Your task to perform on an android device: change alarm snooze length Image 0: 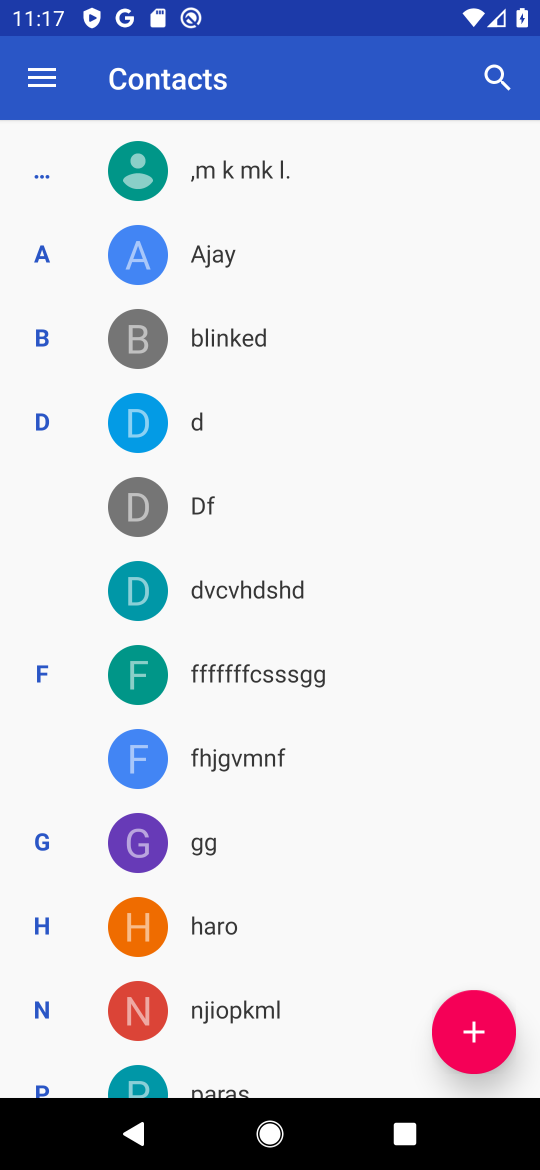
Step 0: press home button
Your task to perform on an android device: change alarm snooze length Image 1: 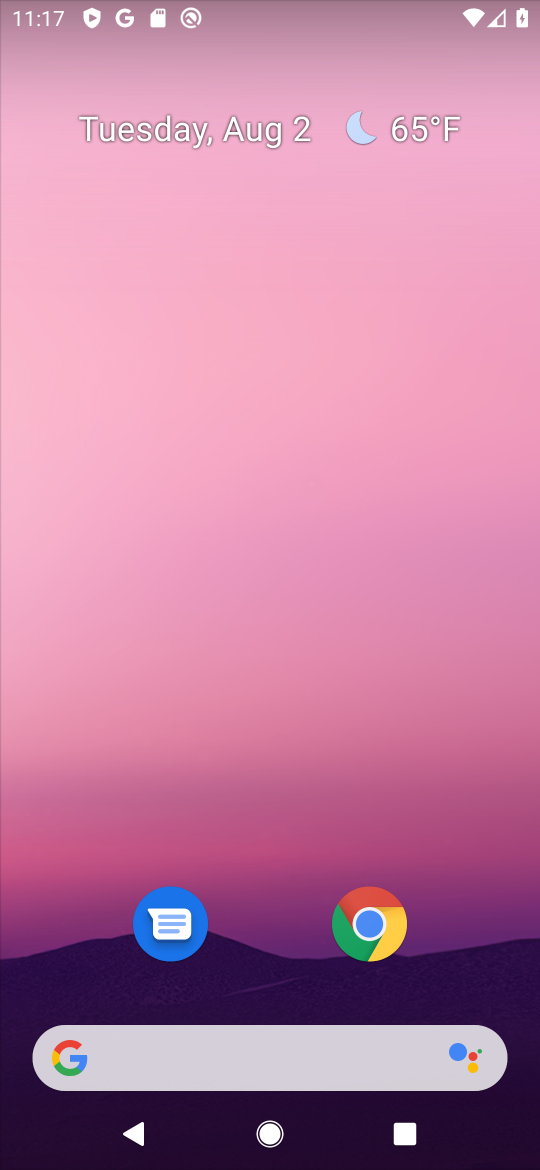
Step 1: drag from (314, 963) to (379, 213)
Your task to perform on an android device: change alarm snooze length Image 2: 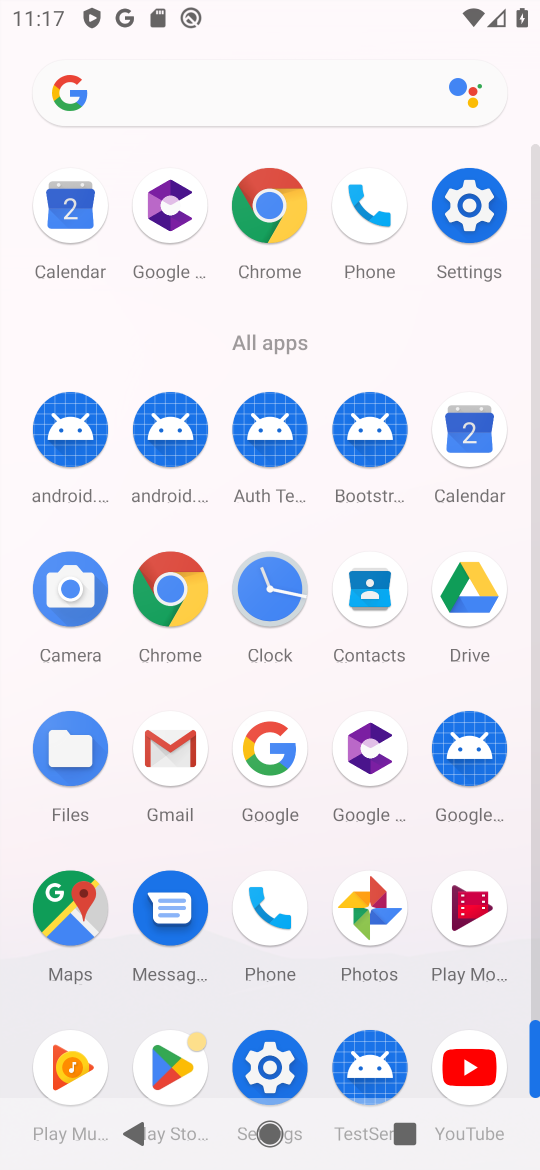
Step 2: click (258, 593)
Your task to perform on an android device: change alarm snooze length Image 3: 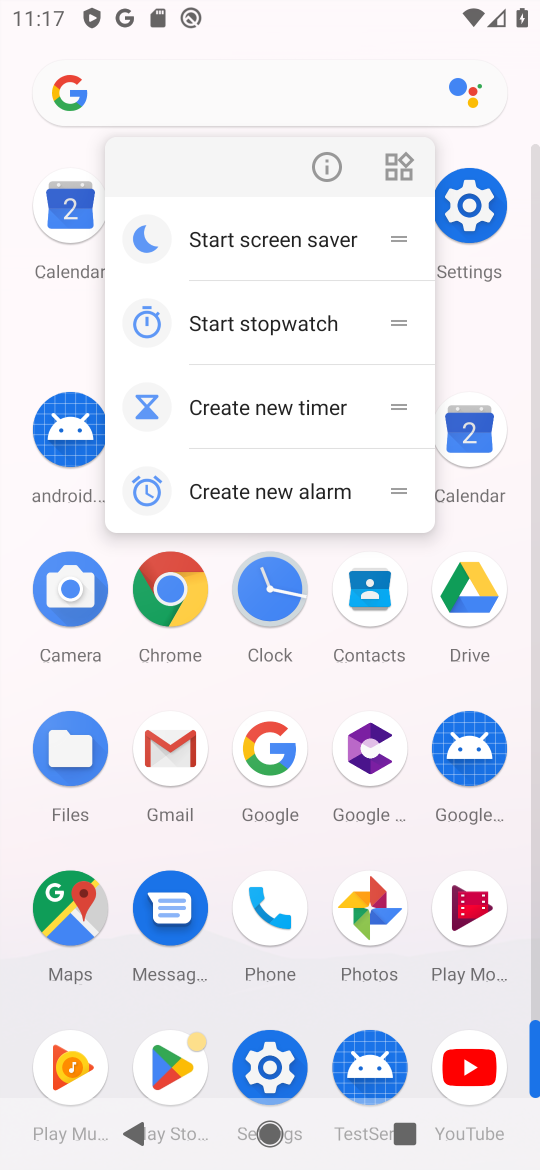
Step 3: click (505, 555)
Your task to perform on an android device: change alarm snooze length Image 4: 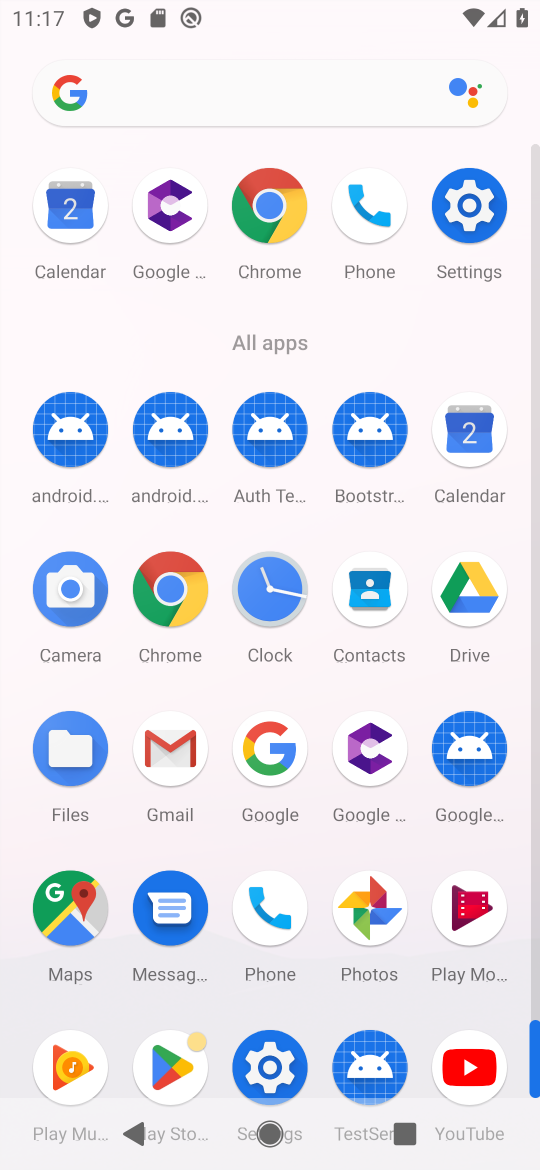
Step 4: click (267, 594)
Your task to perform on an android device: change alarm snooze length Image 5: 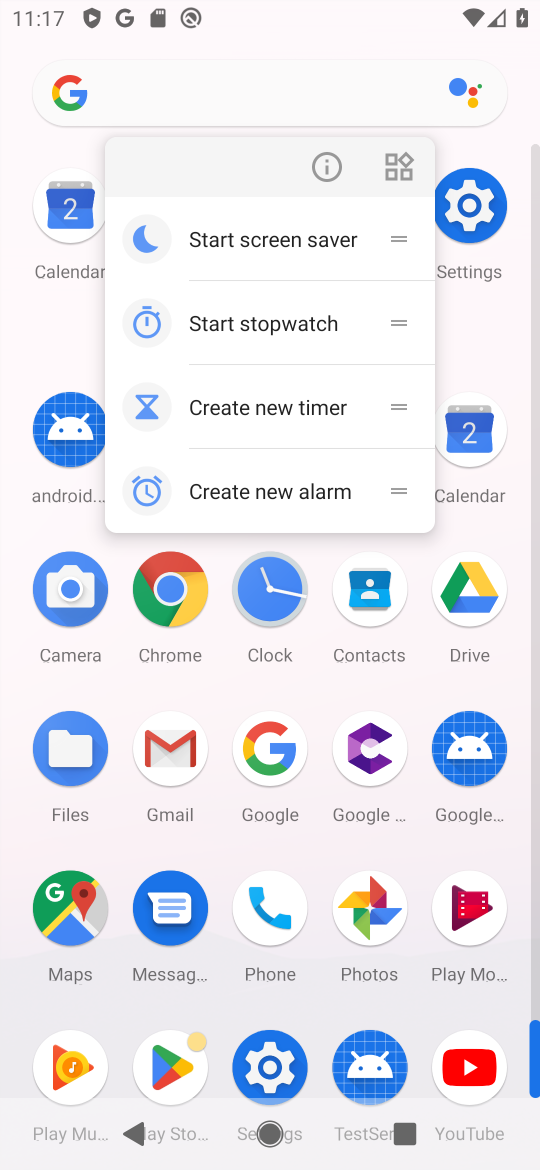
Step 5: click (258, 588)
Your task to perform on an android device: change alarm snooze length Image 6: 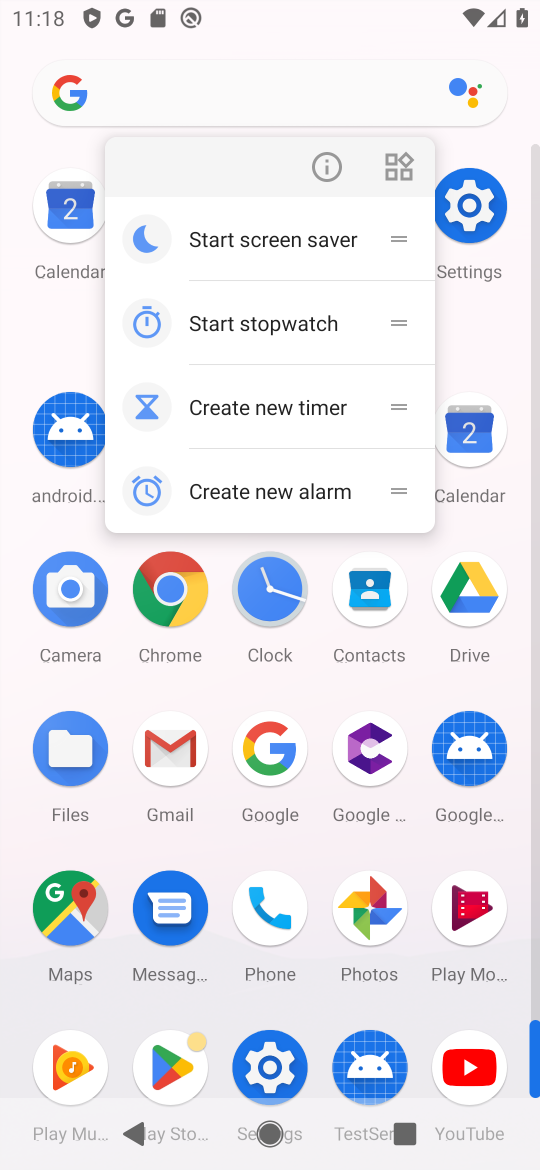
Step 6: click (258, 588)
Your task to perform on an android device: change alarm snooze length Image 7: 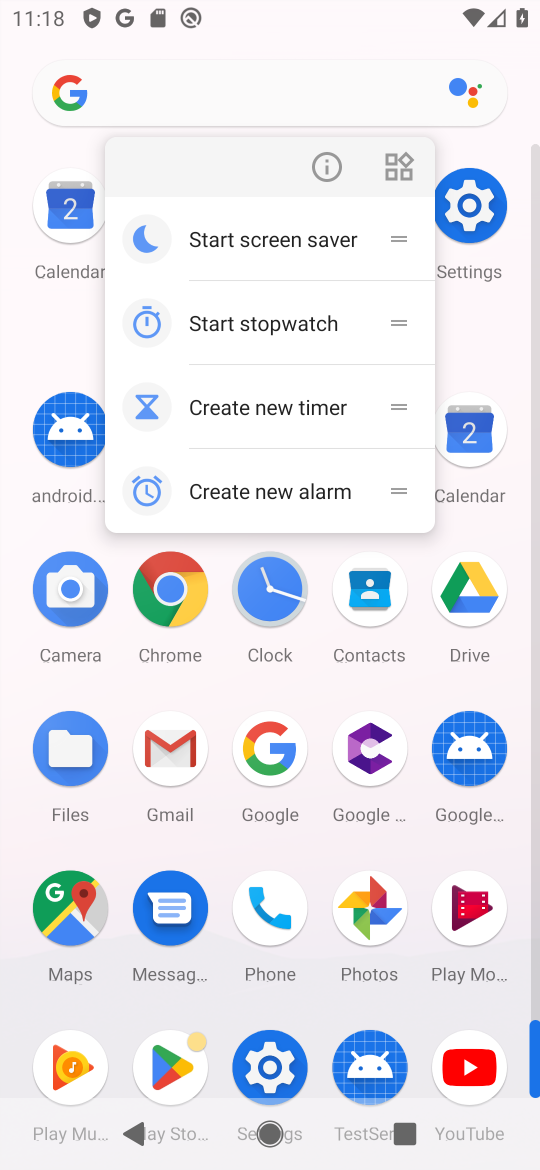
Step 7: click (255, 588)
Your task to perform on an android device: change alarm snooze length Image 8: 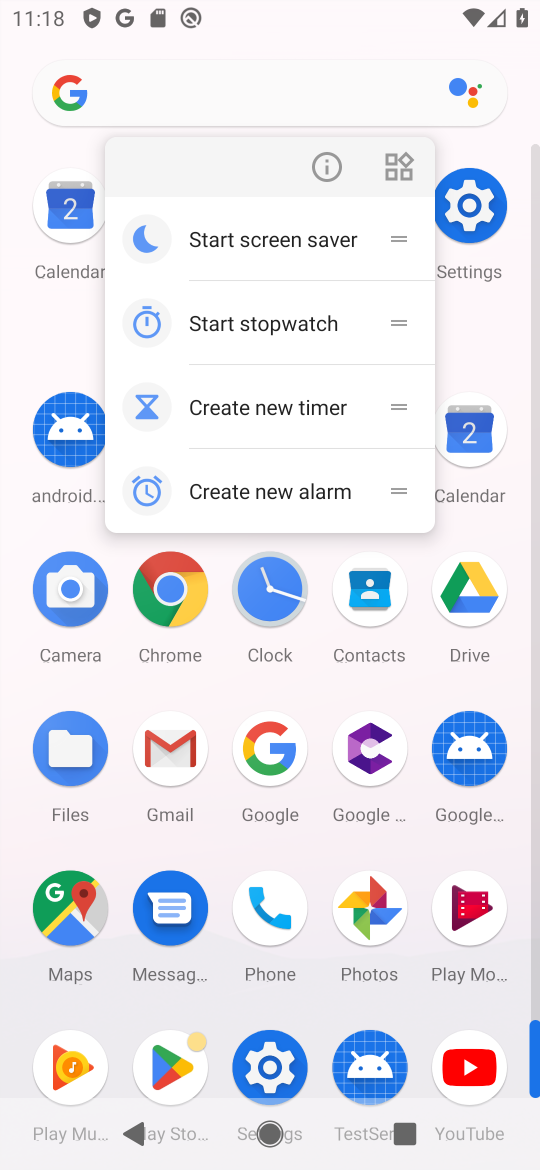
Step 8: click (255, 588)
Your task to perform on an android device: change alarm snooze length Image 9: 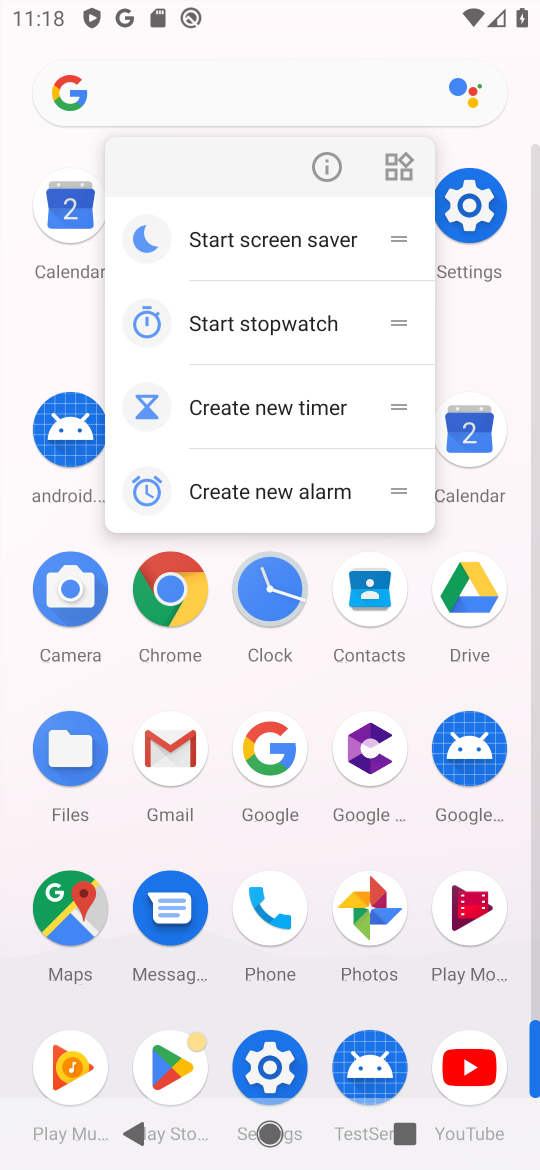
Step 9: click (290, 605)
Your task to perform on an android device: change alarm snooze length Image 10: 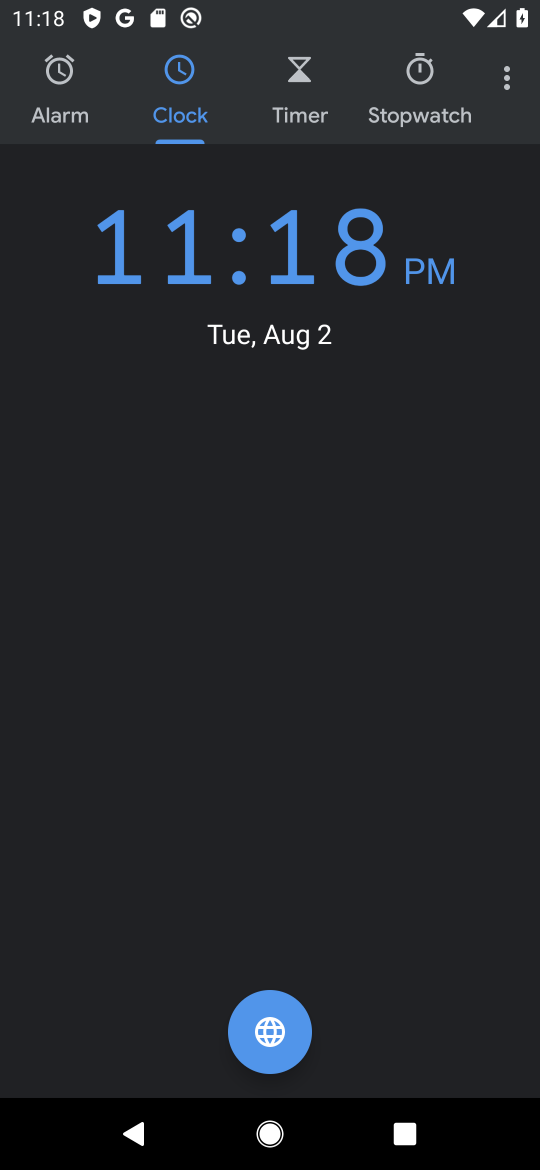
Step 10: click (510, 66)
Your task to perform on an android device: change alarm snooze length Image 11: 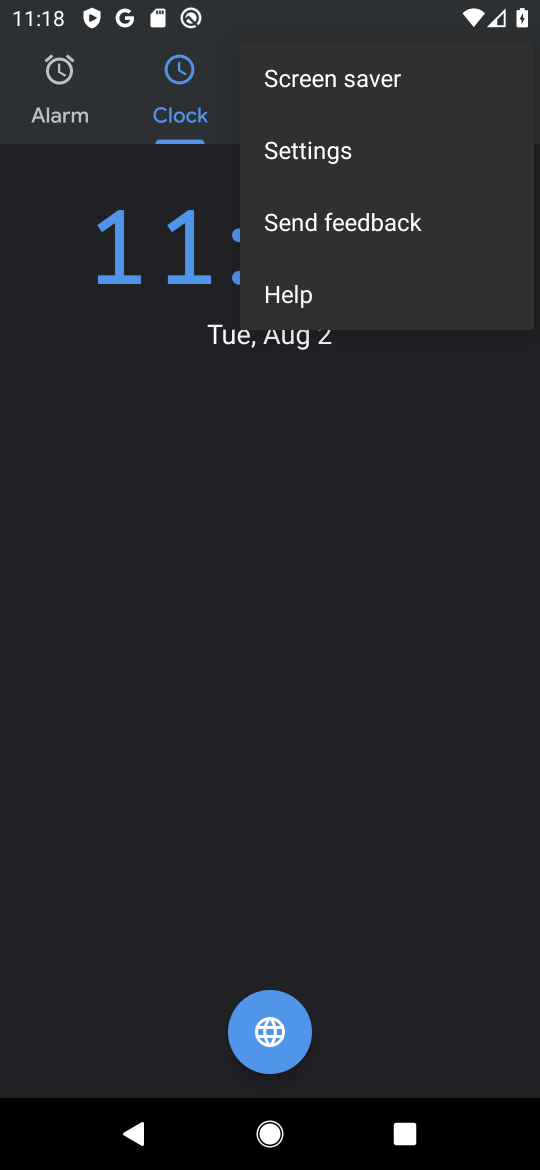
Step 11: click (331, 139)
Your task to perform on an android device: change alarm snooze length Image 12: 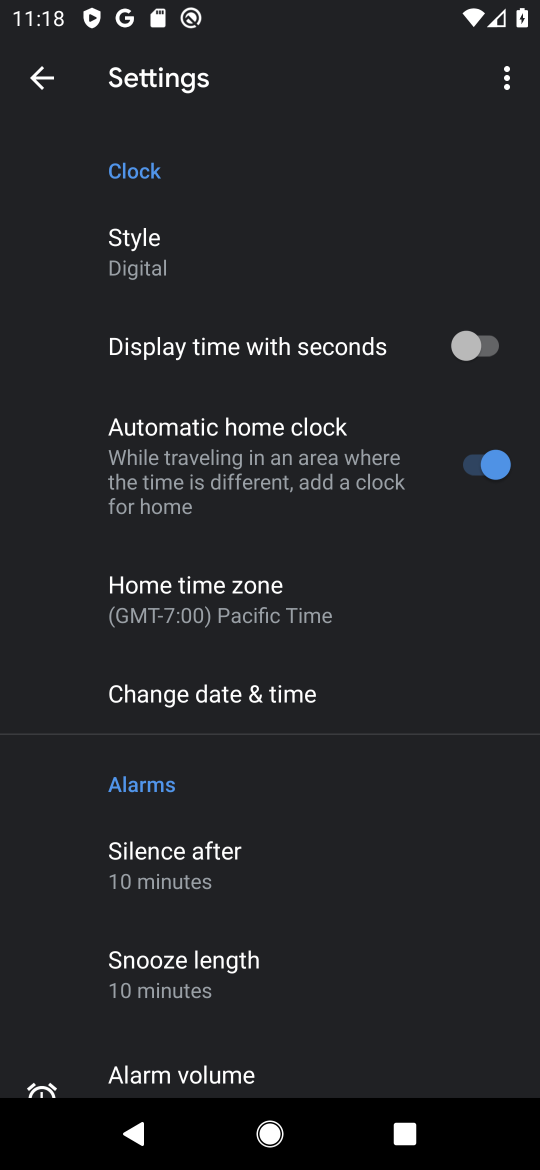
Step 12: click (211, 982)
Your task to perform on an android device: change alarm snooze length Image 13: 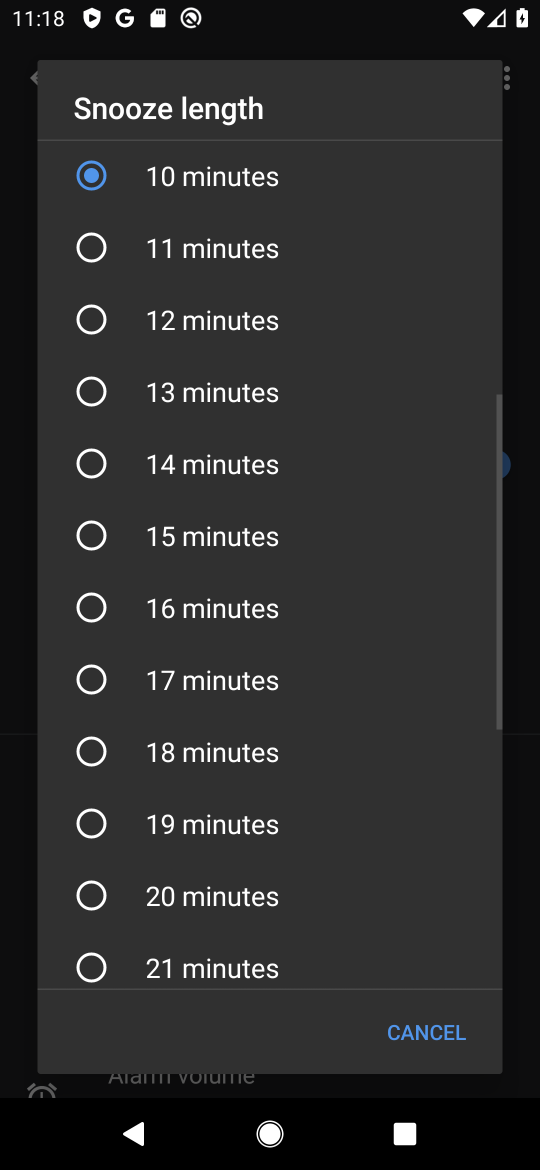
Step 13: click (87, 904)
Your task to perform on an android device: change alarm snooze length Image 14: 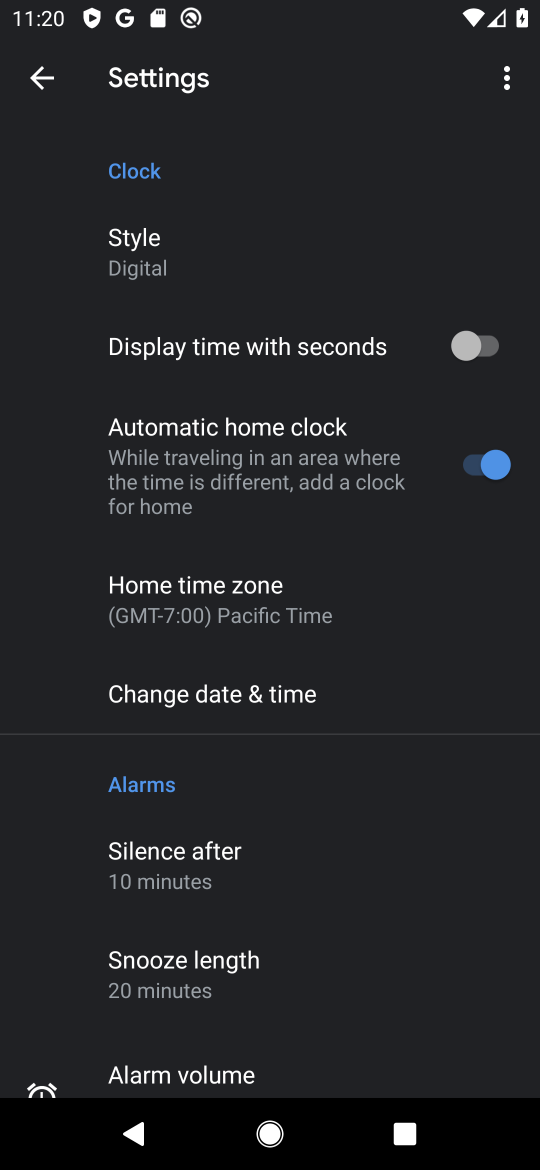
Step 14: task complete